Your task to perform on an android device: Open the Play Movies app and select the watchlist tab. Image 0: 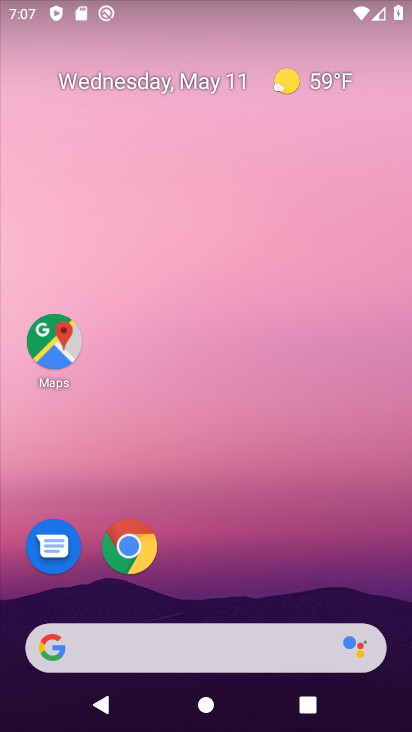
Step 0: drag from (375, 574) to (321, 71)
Your task to perform on an android device: Open the Play Movies app and select the watchlist tab. Image 1: 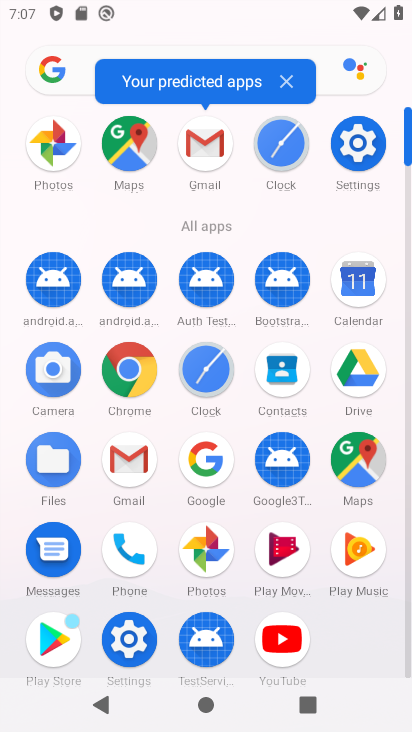
Step 1: click (279, 554)
Your task to perform on an android device: Open the Play Movies app and select the watchlist tab. Image 2: 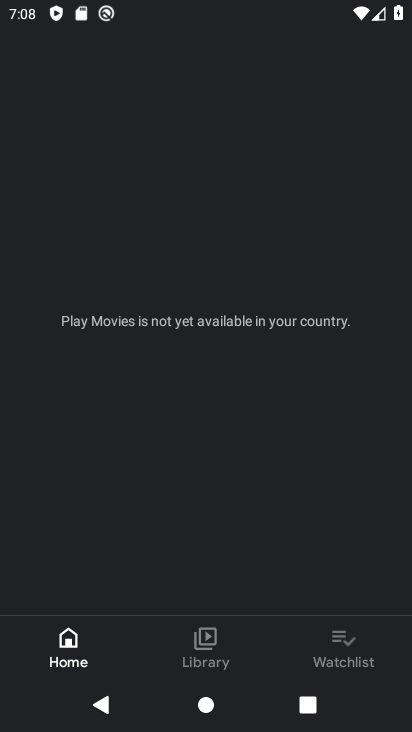
Step 2: click (336, 637)
Your task to perform on an android device: Open the Play Movies app and select the watchlist tab. Image 3: 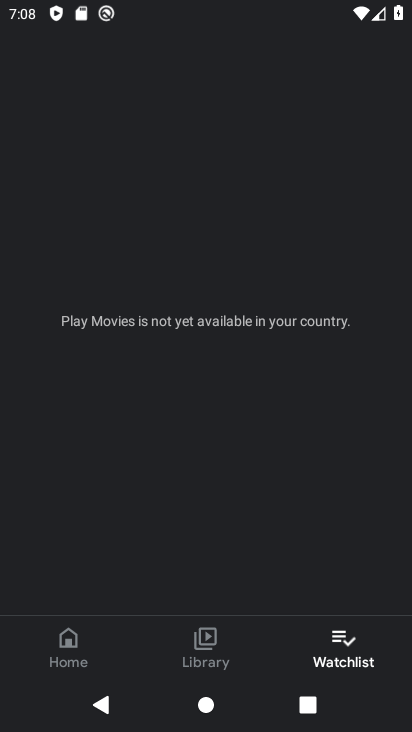
Step 3: task complete